Your task to perform on an android device: Turn on the flashlight Image 0: 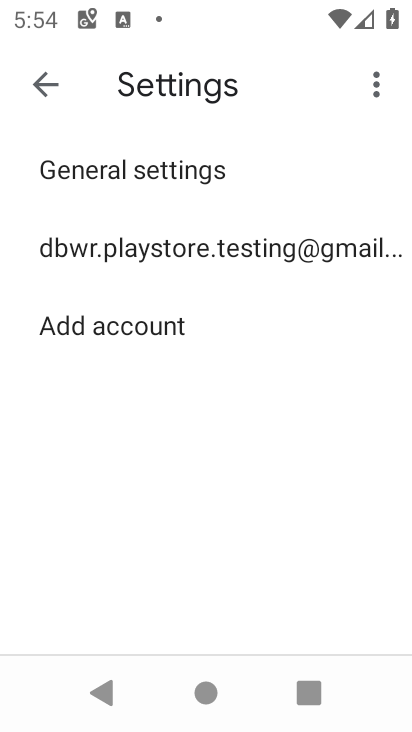
Step 0: press home button
Your task to perform on an android device: Turn on the flashlight Image 1: 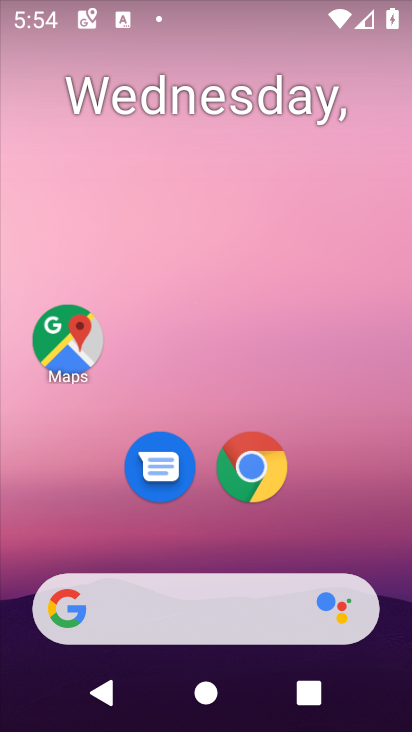
Step 1: task complete